Your task to perform on an android device: Open Yahoo.com Image 0: 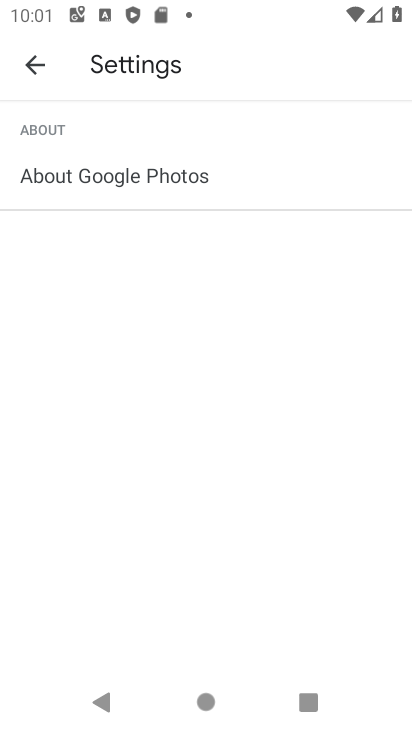
Step 0: press home button
Your task to perform on an android device: Open Yahoo.com Image 1: 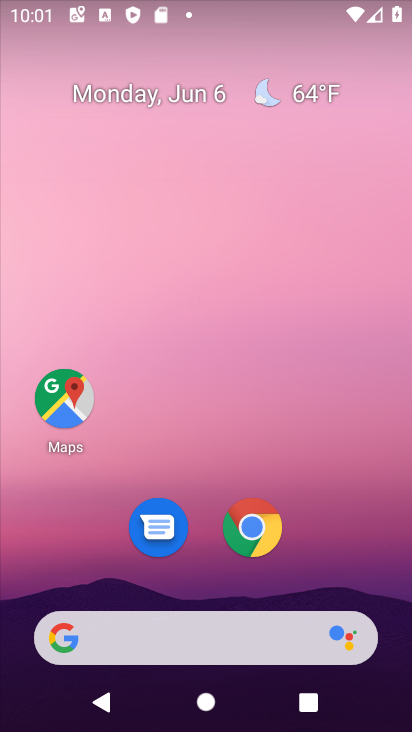
Step 1: drag from (174, 635) to (259, 154)
Your task to perform on an android device: Open Yahoo.com Image 2: 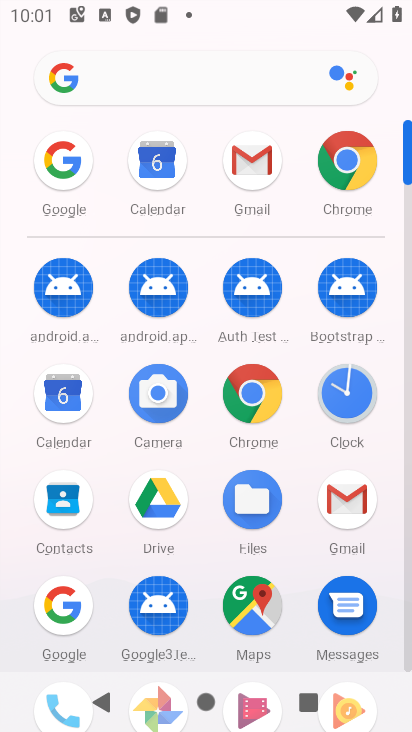
Step 2: click (336, 178)
Your task to perform on an android device: Open Yahoo.com Image 3: 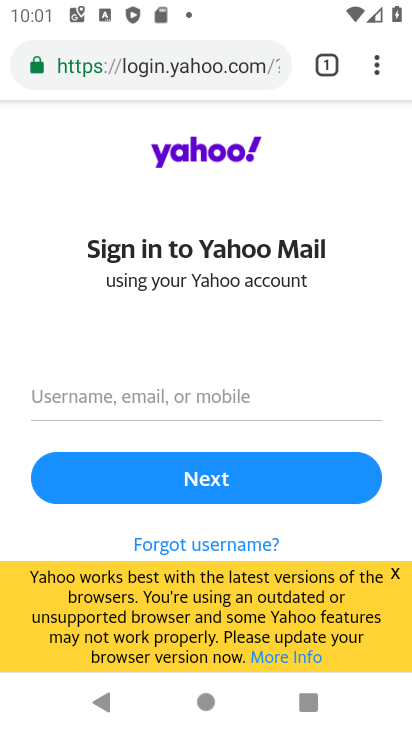
Step 3: task complete